Your task to perform on an android device: Open accessibility settings Image 0: 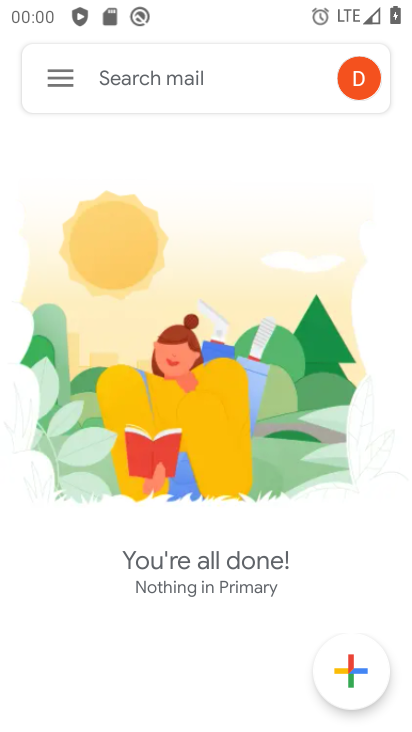
Step 0: press home button
Your task to perform on an android device: Open accessibility settings Image 1: 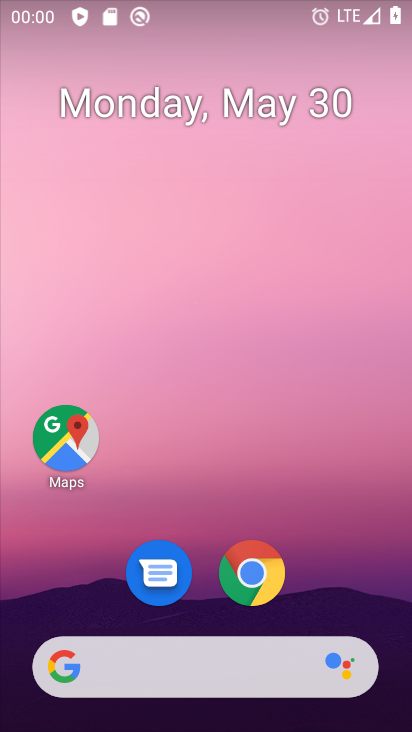
Step 1: drag from (351, 556) to (159, 49)
Your task to perform on an android device: Open accessibility settings Image 2: 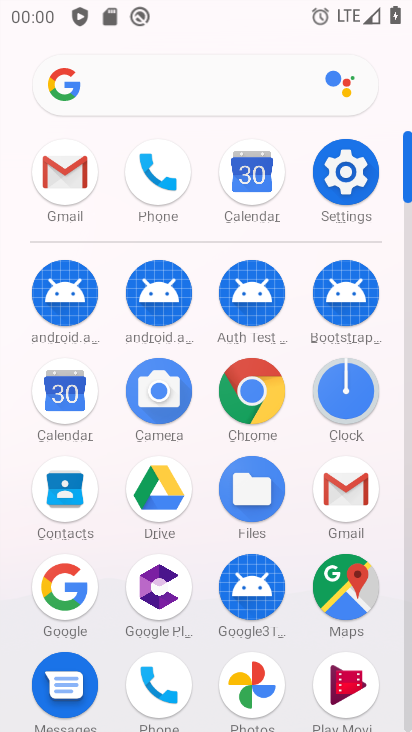
Step 2: click (344, 199)
Your task to perform on an android device: Open accessibility settings Image 3: 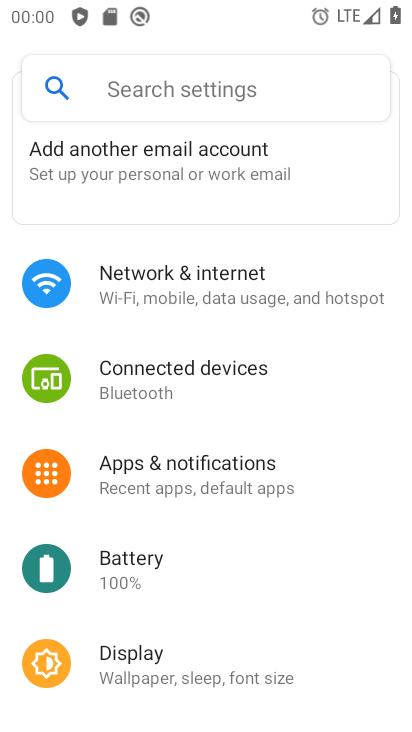
Step 3: drag from (307, 337) to (297, 89)
Your task to perform on an android device: Open accessibility settings Image 4: 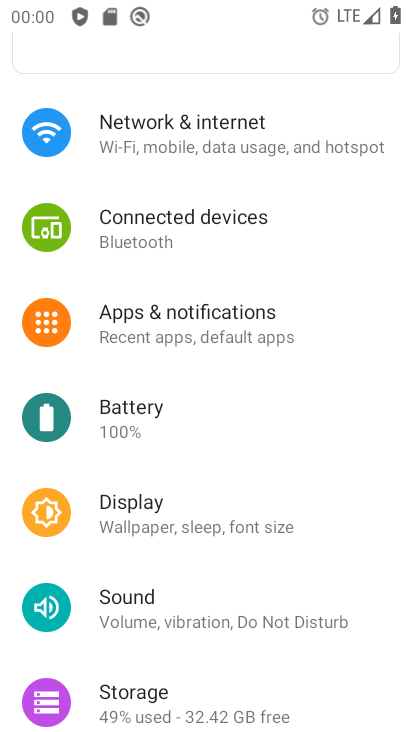
Step 4: drag from (229, 623) to (230, 23)
Your task to perform on an android device: Open accessibility settings Image 5: 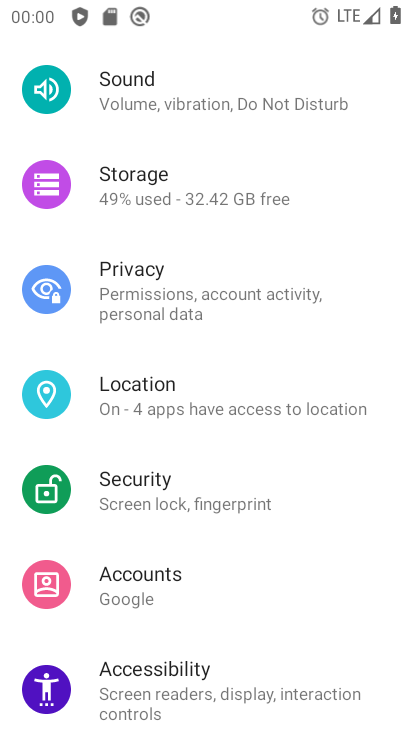
Step 5: click (211, 675)
Your task to perform on an android device: Open accessibility settings Image 6: 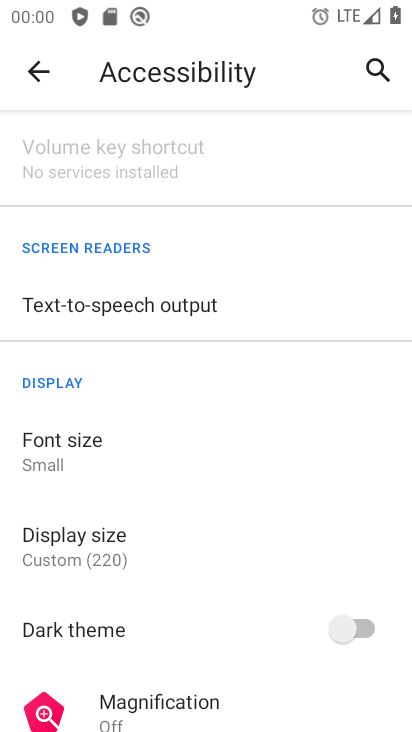
Step 6: task complete